Your task to perform on an android device: create a new album in the google photos Image 0: 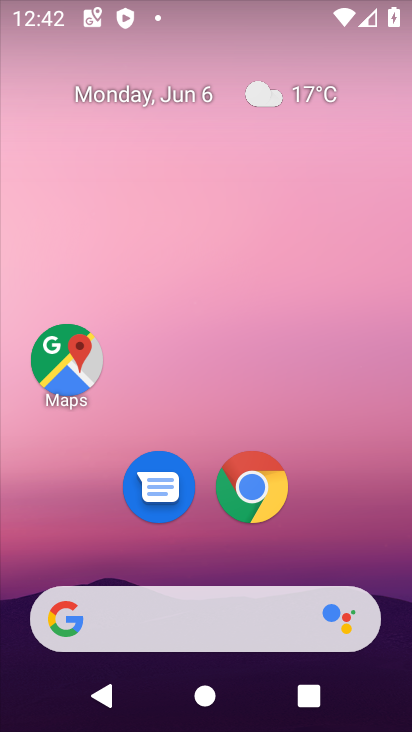
Step 0: drag from (197, 547) to (219, 5)
Your task to perform on an android device: create a new album in the google photos Image 1: 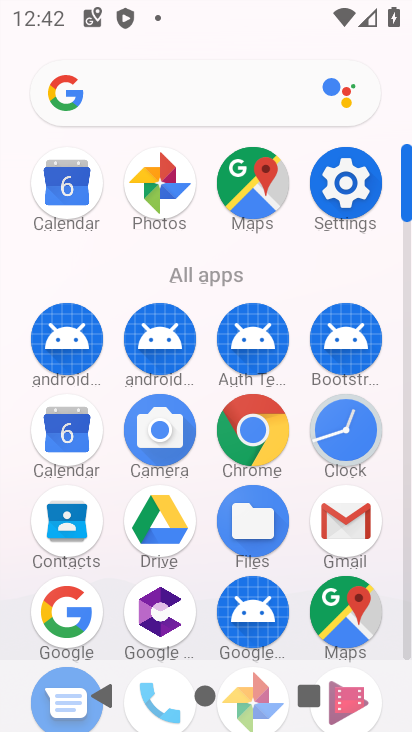
Step 1: drag from (245, 568) to (300, 149)
Your task to perform on an android device: create a new album in the google photos Image 2: 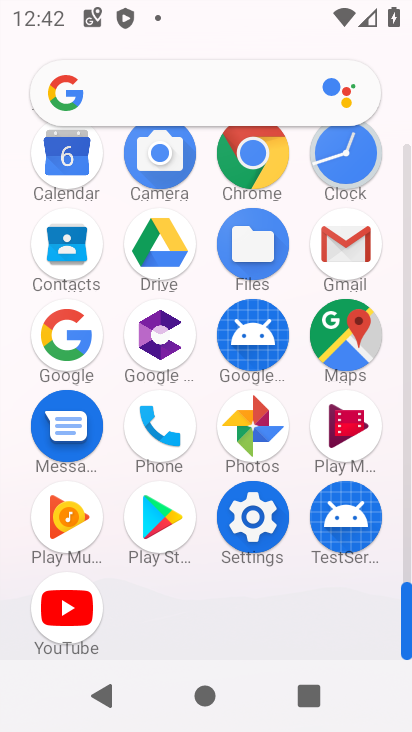
Step 2: click (259, 437)
Your task to perform on an android device: create a new album in the google photos Image 3: 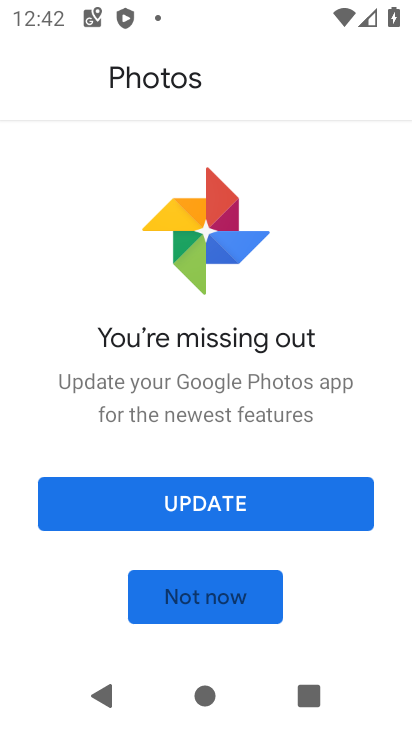
Step 3: click (188, 603)
Your task to perform on an android device: create a new album in the google photos Image 4: 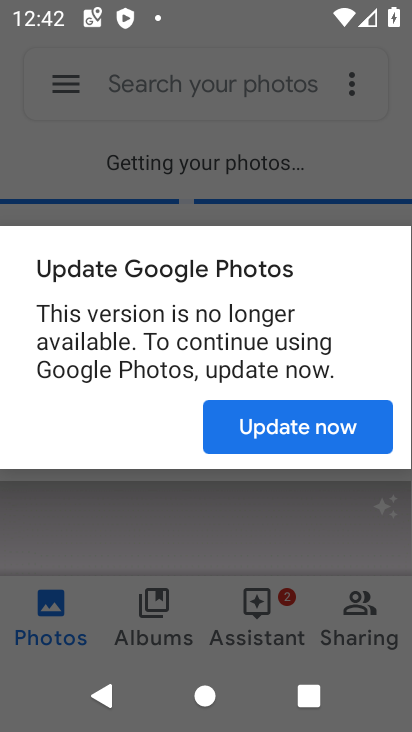
Step 4: drag from (288, 421) to (334, 421)
Your task to perform on an android device: create a new album in the google photos Image 5: 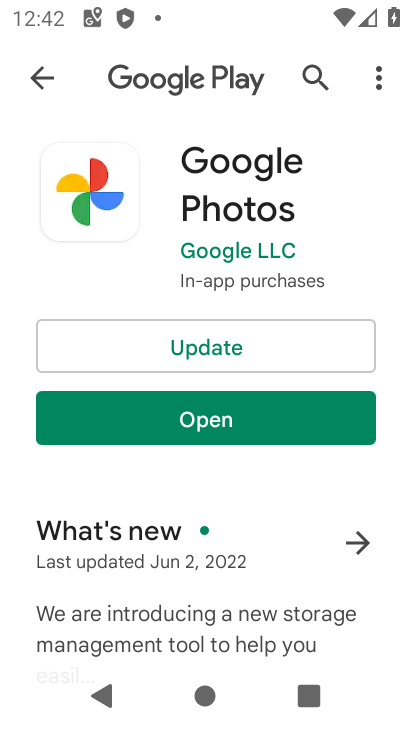
Step 5: press back button
Your task to perform on an android device: create a new album in the google photos Image 6: 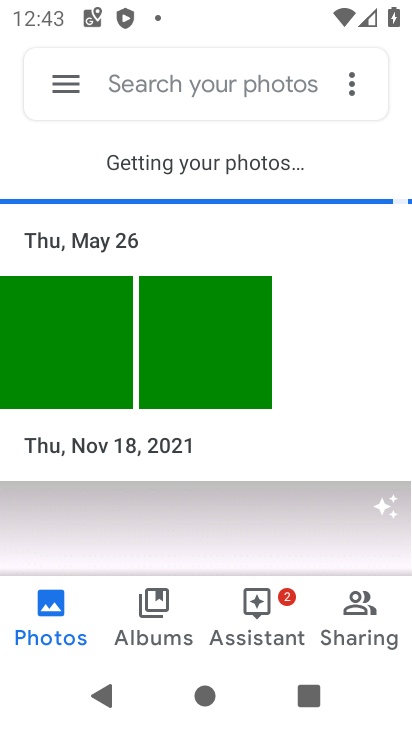
Step 6: click (354, 87)
Your task to perform on an android device: create a new album in the google photos Image 7: 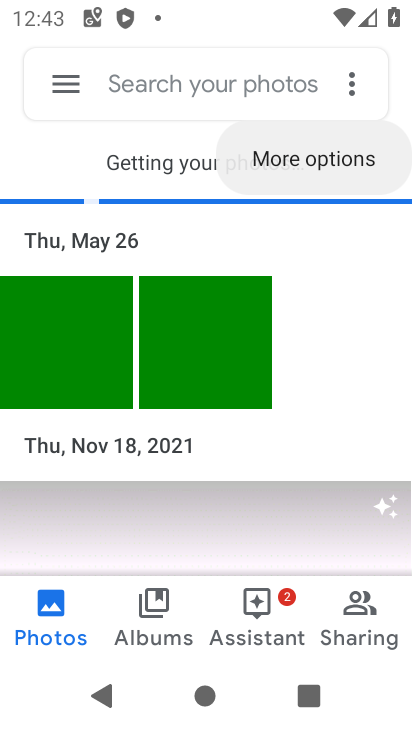
Step 7: click (355, 80)
Your task to perform on an android device: create a new album in the google photos Image 8: 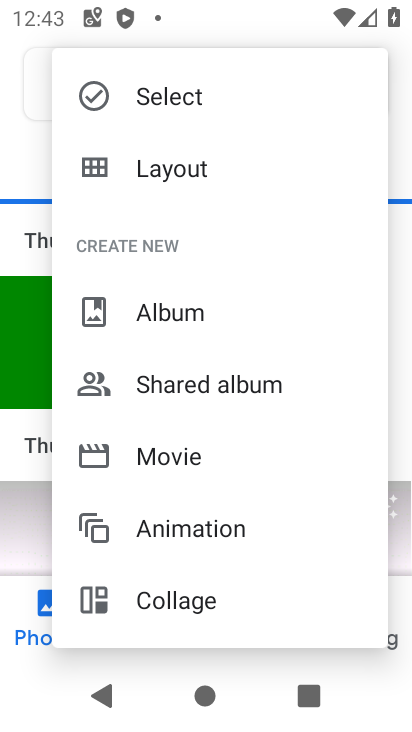
Step 8: click (151, 327)
Your task to perform on an android device: create a new album in the google photos Image 9: 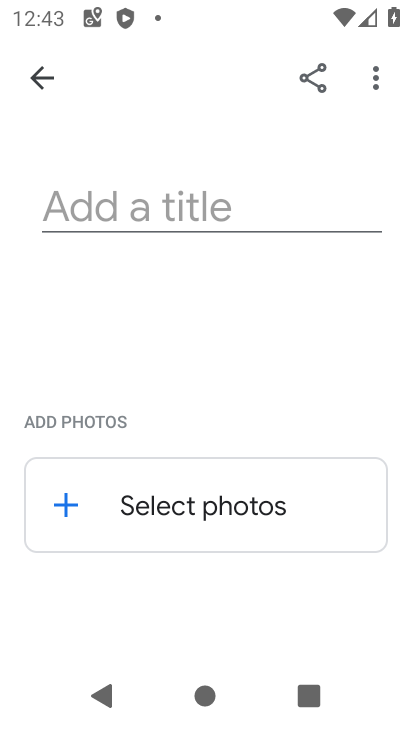
Step 9: click (126, 213)
Your task to perform on an android device: create a new album in the google photos Image 10: 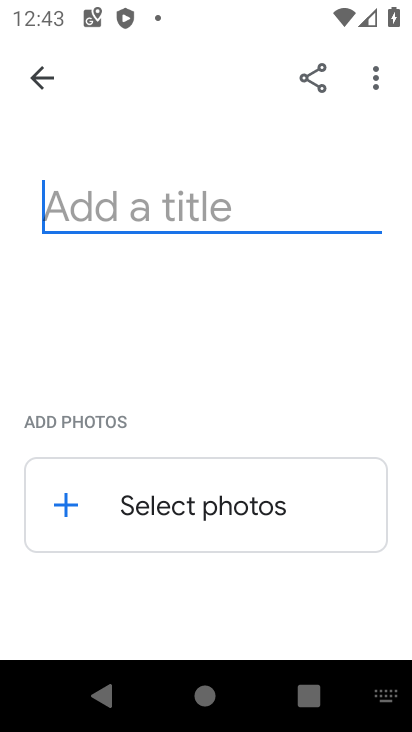
Step 10: type "hvhv"
Your task to perform on an android device: create a new album in the google photos Image 11: 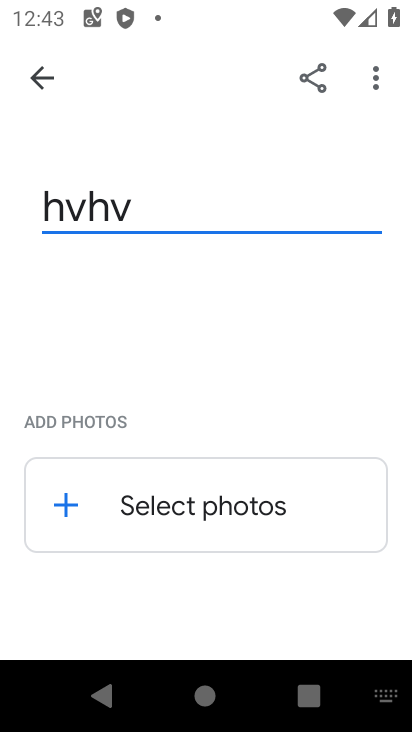
Step 11: click (246, 516)
Your task to perform on an android device: create a new album in the google photos Image 12: 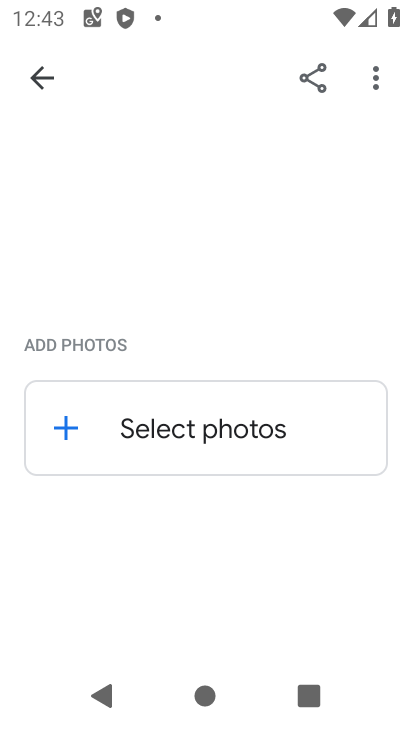
Step 12: click (153, 422)
Your task to perform on an android device: create a new album in the google photos Image 13: 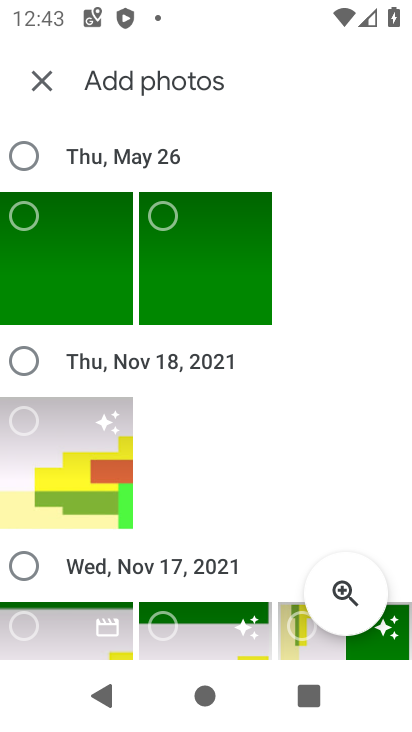
Step 13: click (26, 159)
Your task to perform on an android device: create a new album in the google photos Image 14: 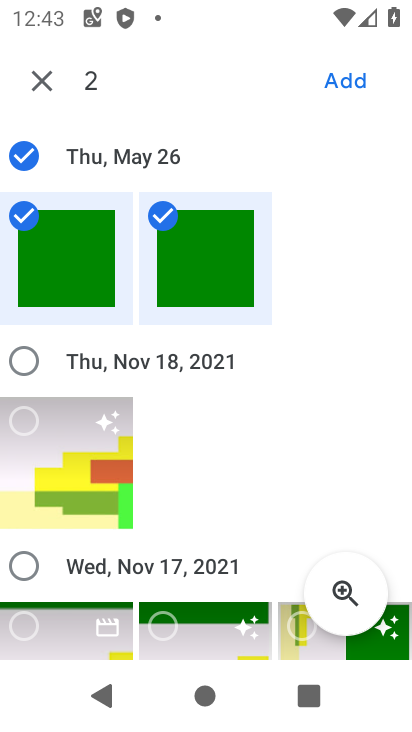
Step 14: click (40, 359)
Your task to perform on an android device: create a new album in the google photos Image 15: 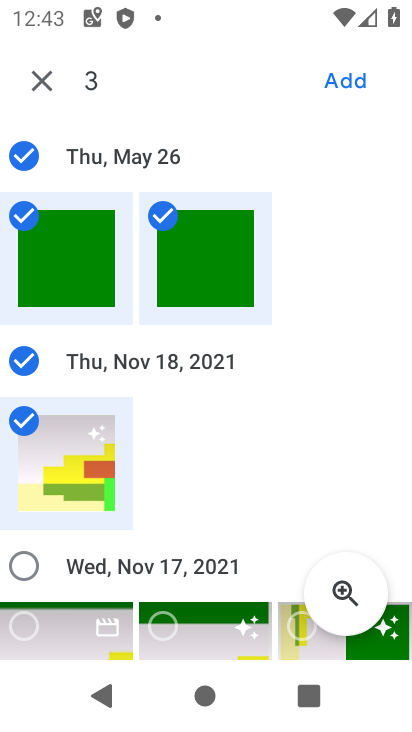
Step 15: click (16, 552)
Your task to perform on an android device: create a new album in the google photos Image 16: 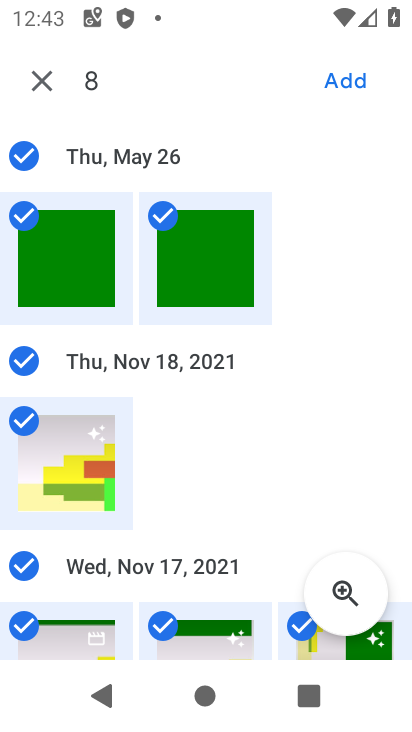
Step 16: click (349, 85)
Your task to perform on an android device: create a new album in the google photos Image 17: 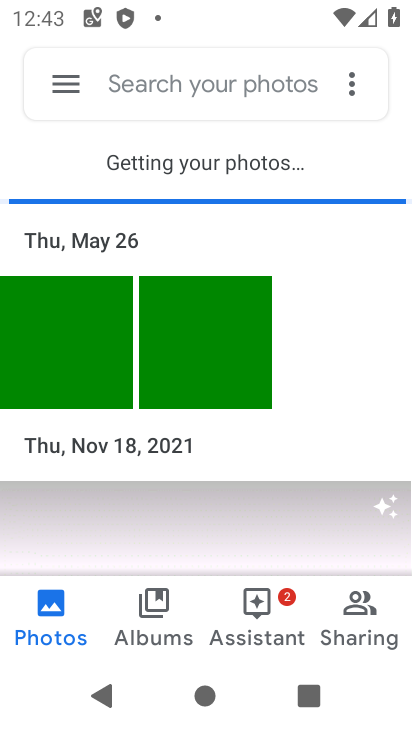
Step 17: task complete